Your task to perform on an android device: see creations saved in the google photos Image 0: 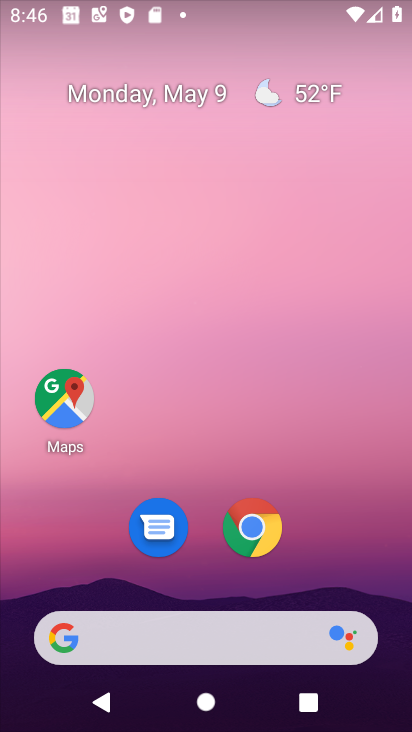
Step 0: drag from (212, 581) to (233, 142)
Your task to perform on an android device: see creations saved in the google photos Image 1: 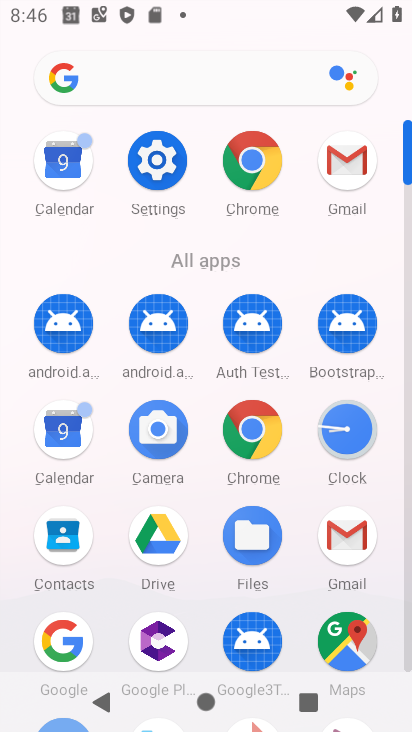
Step 1: drag from (212, 552) to (194, 286)
Your task to perform on an android device: see creations saved in the google photos Image 2: 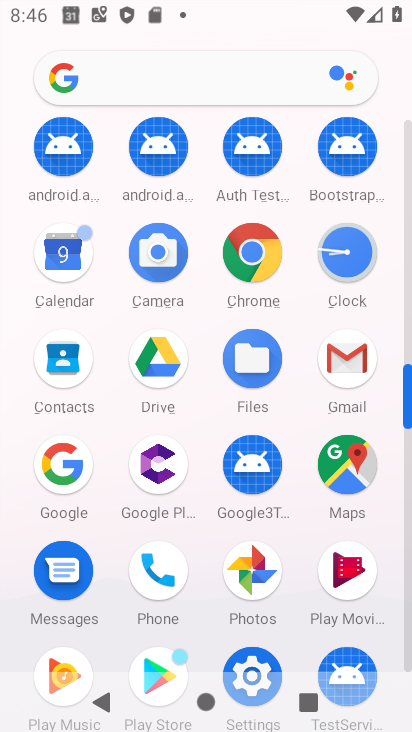
Step 2: click (256, 572)
Your task to perform on an android device: see creations saved in the google photos Image 3: 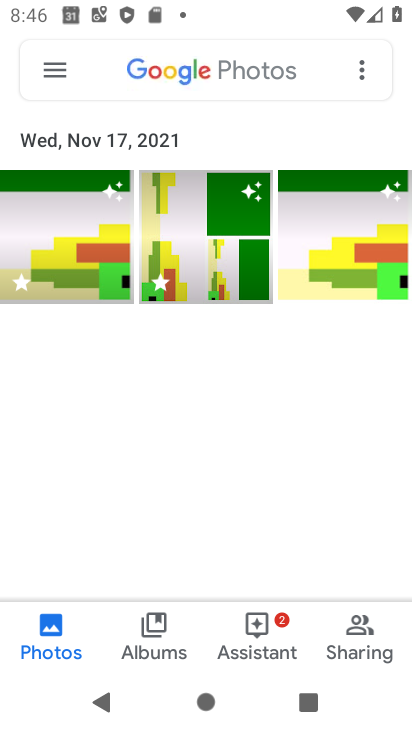
Step 3: click (189, 70)
Your task to perform on an android device: see creations saved in the google photos Image 4: 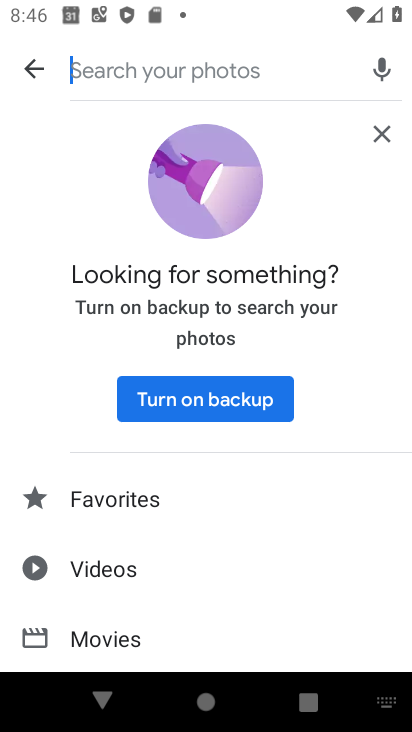
Step 4: drag from (174, 552) to (165, 314)
Your task to perform on an android device: see creations saved in the google photos Image 5: 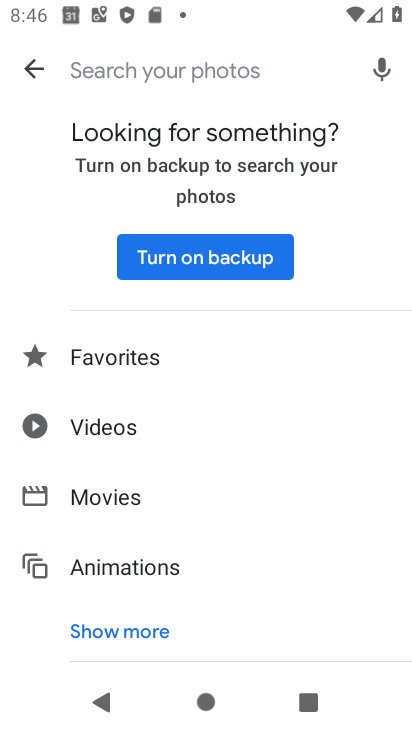
Step 5: click (117, 628)
Your task to perform on an android device: see creations saved in the google photos Image 6: 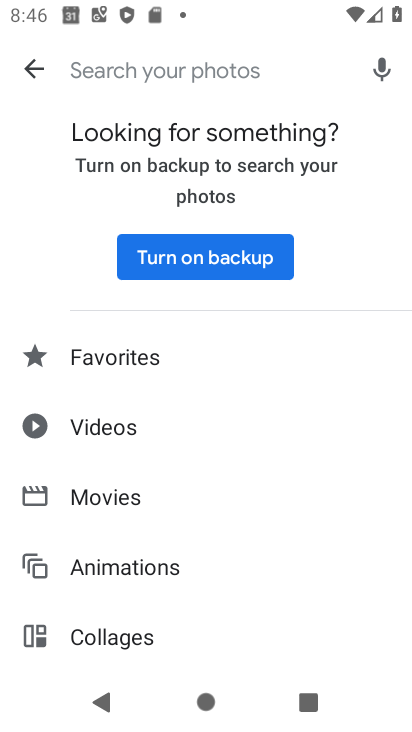
Step 6: drag from (147, 624) to (178, 362)
Your task to perform on an android device: see creations saved in the google photos Image 7: 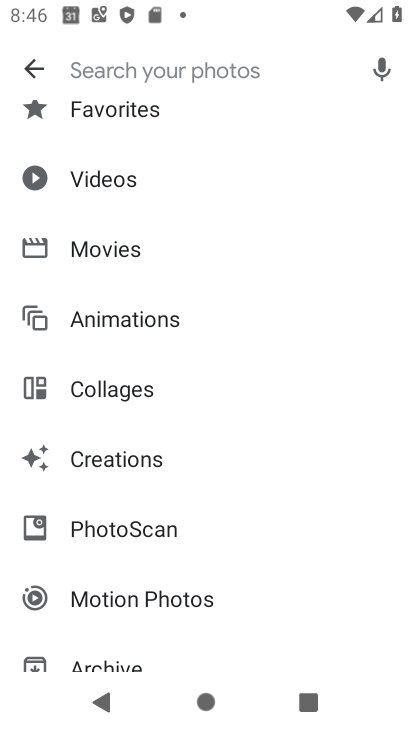
Step 7: click (131, 458)
Your task to perform on an android device: see creations saved in the google photos Image 8: 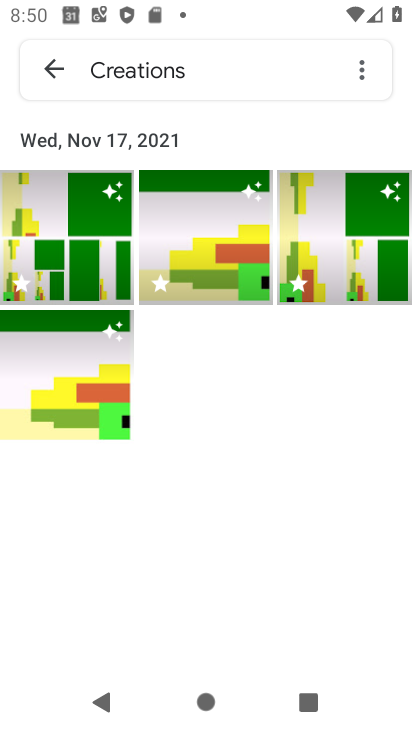
Step 8: task complete